Your task to perform on an android device: Open my contact list Image 0: 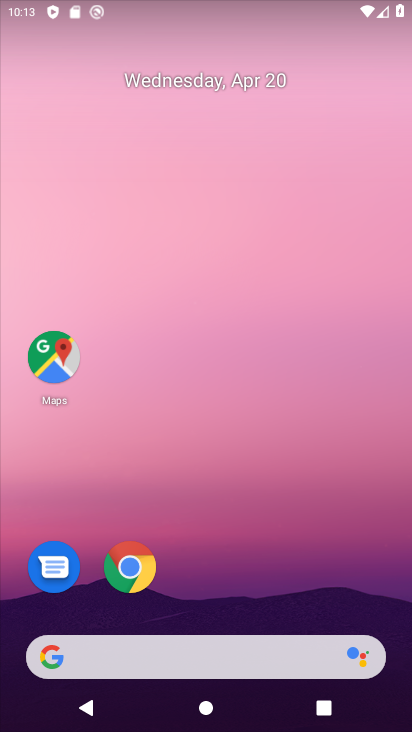
Step 0: drag from (288, 556) to (118, 1)
Your task to perform on an android device: Open my contact list Image 1: 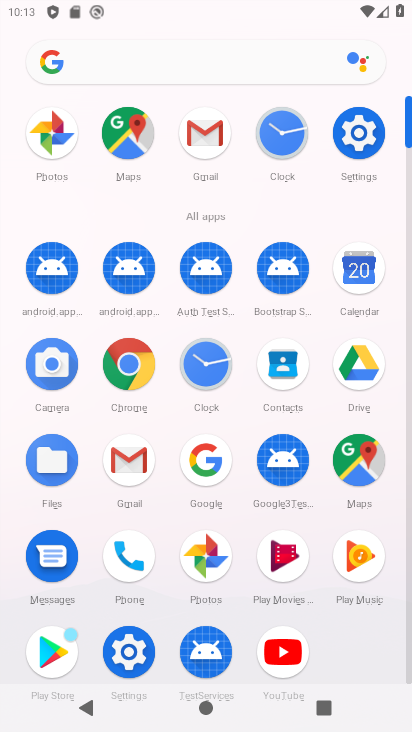
Step 1: click (283, 360)
Your task to perform on an android device: Open my contact list Image 2: 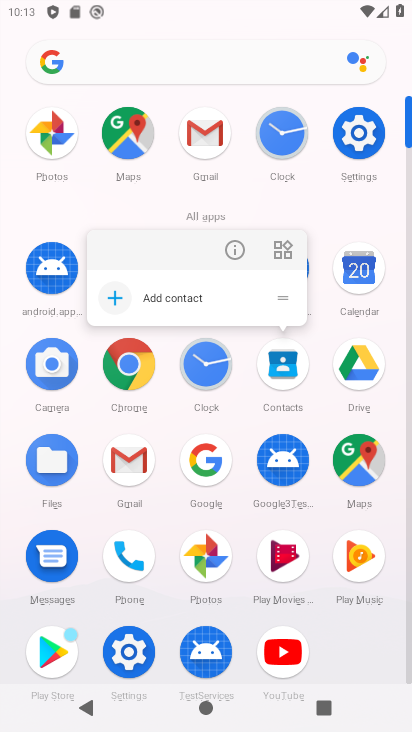
Step 2: click (280, 374)
Your task to perform on an android device: Open my contact list Image 3: 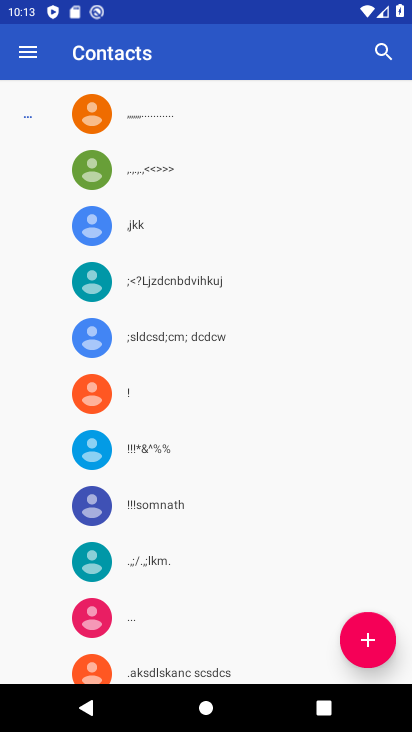
Step 3: task complete